Your task to perform on an android device: Open Youtube and go to "Your channel" Image 0: 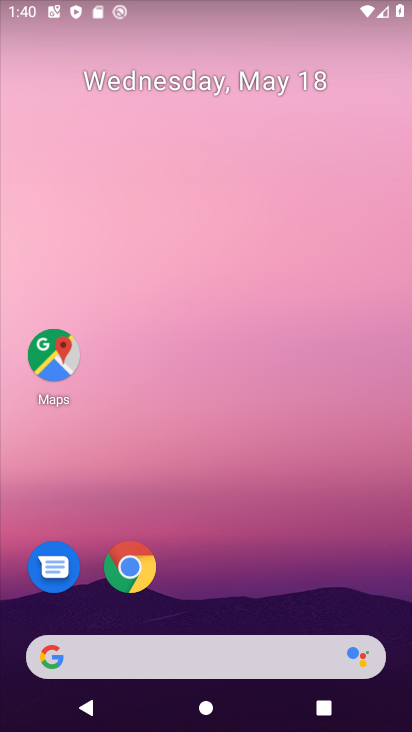
Step 0: drag from (290, 590) to (340, 108)
Your task to perform on an android device: Open Youtube and go to "Your channel" Image 1: 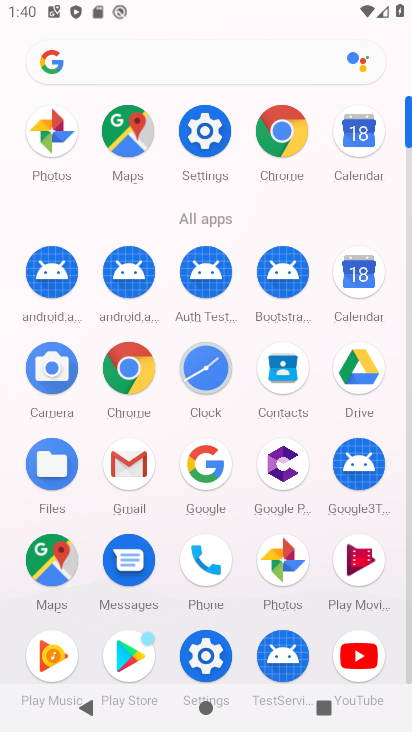
Step 1: click (359, 649)
Your task to perform on an android device: Open Youtube and go to "Your channel" Image 2: 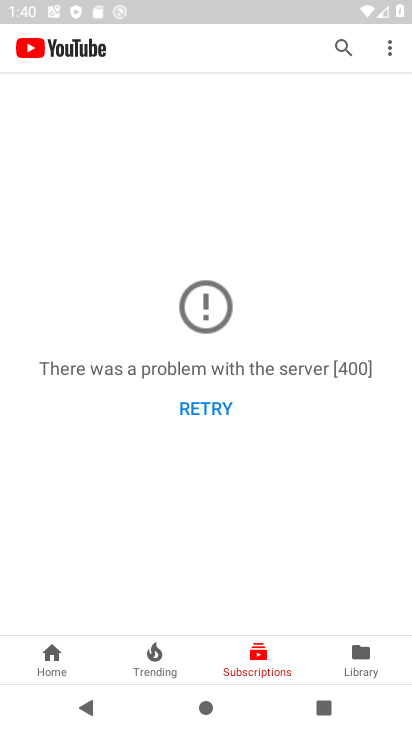
Step 2: task complete